Your task to perform on an android device: turn off notifications settings in the gmail app Image 0: 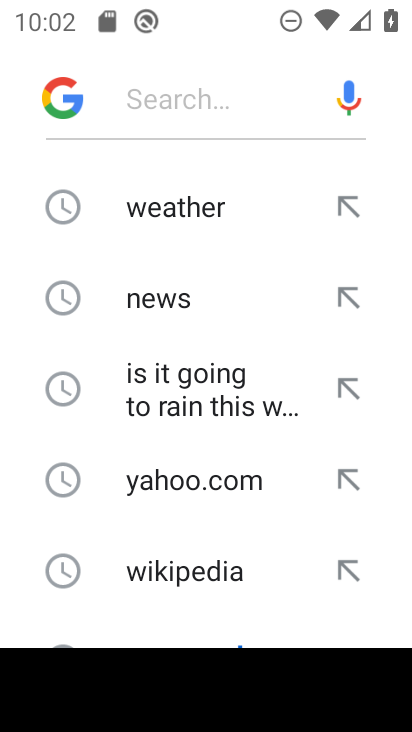
Step 0: press home button
Your task to perform on an android device: turn off notifications settings in the gmail app Image 1: 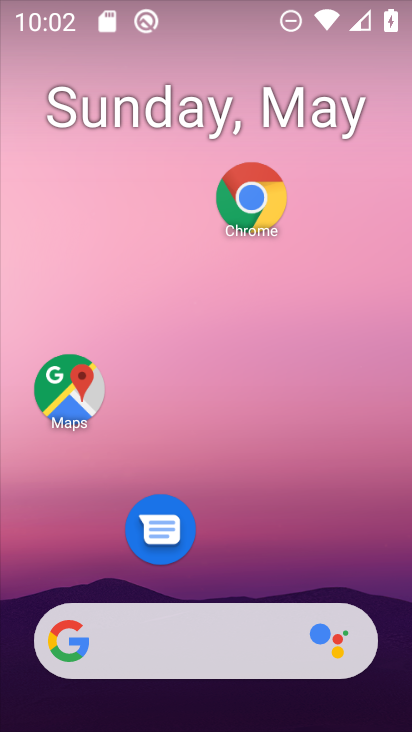
Step 1: drag from (259, 571) to (357, 16)
Your task to perform on an android device: turn off notifications settings in the gmail app Image 2: 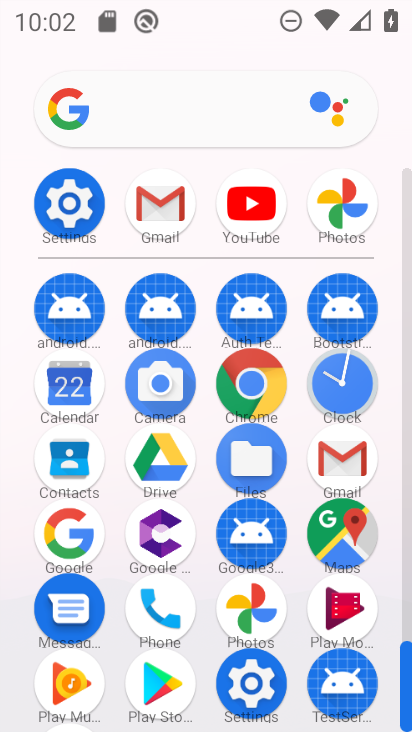
Step 2: click (335, 465)
Your task to perform on an android device: turn off notifications settings in the gmail app Image 3: 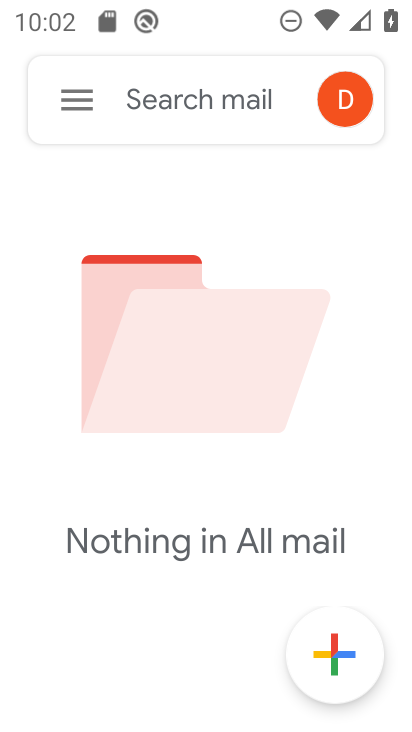
Step 3: click (63, 102)
Your task to perform on an android device: turn off notifications settings in the gmail app Image 4: 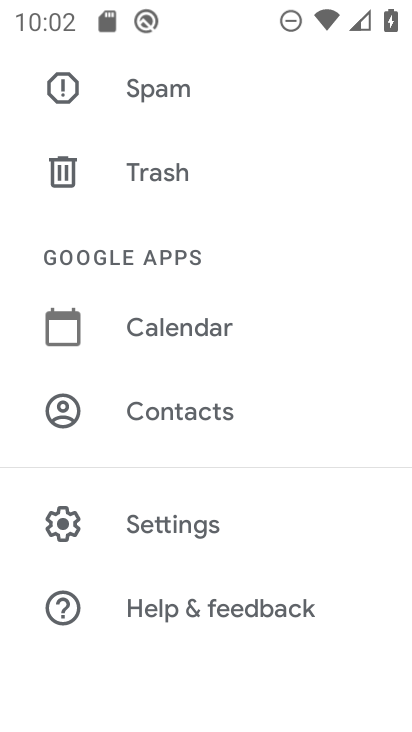
Step 4: click (177, 520)
Your task to perform on an android device: turn off notifications settings in the gmail app Image 5: 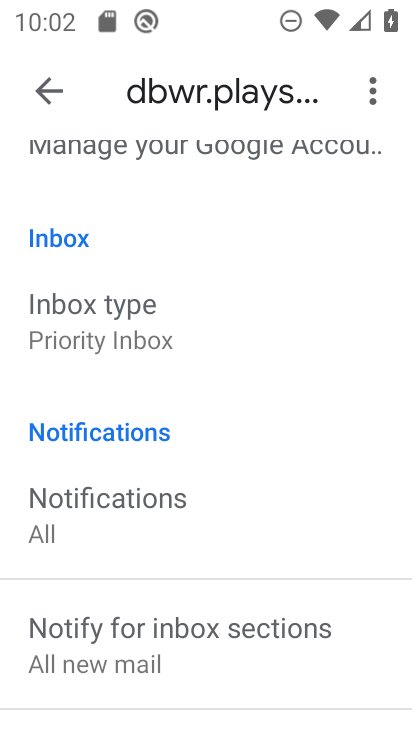
Step 5: drag from (99, 631) to (155, 238)
Your task to perform on an android device: turn off notifications settings in the gmail app Image 6: 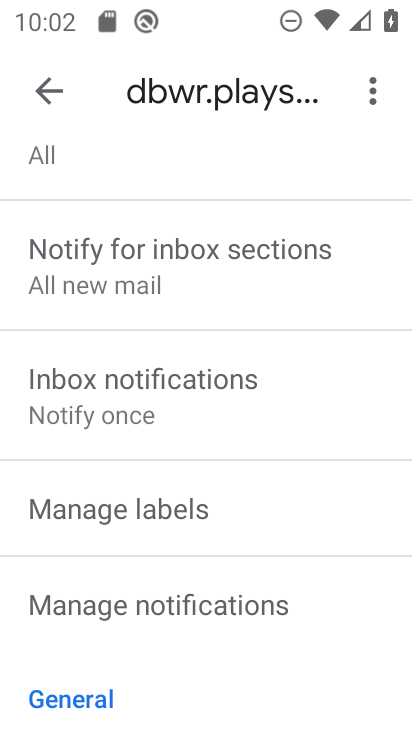
Step 6: click (159, 606)
Your task to perform on an android device: turn off notifications settings in the gmail app Image 7: 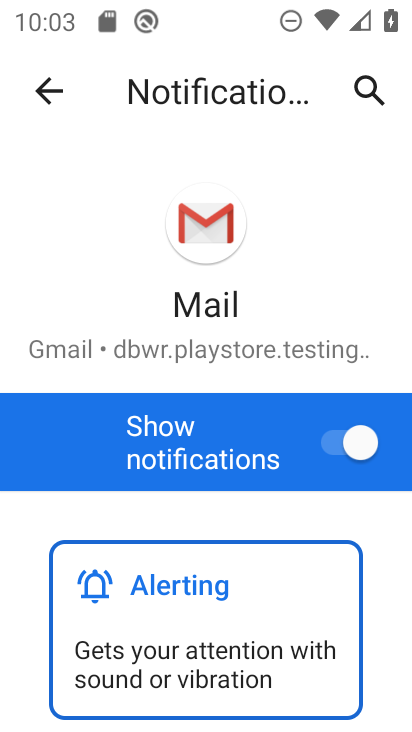
Step 7: click (323, 438)
Your task to perform on an android device: turn off notifications settings in the gmail app Image 8: 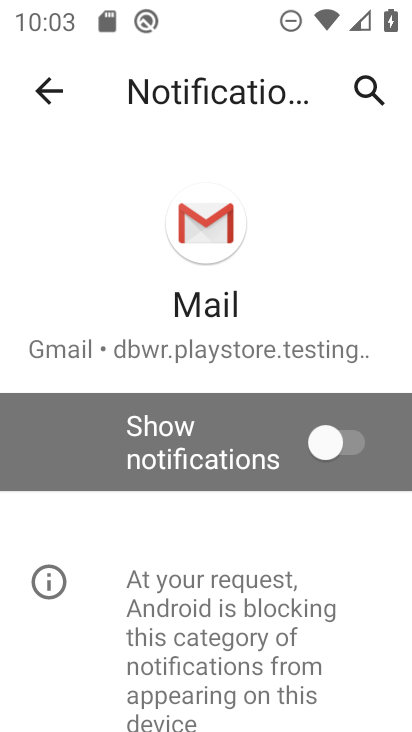
Step 8: task complete